Your task to perform on an android device: turn off wifi Image 0: 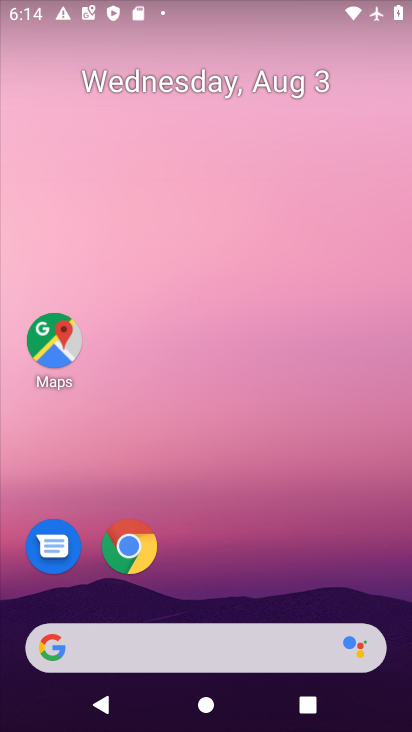
Step 0: press home button
Your task to perform on an android device: turn off wifi Image 1: 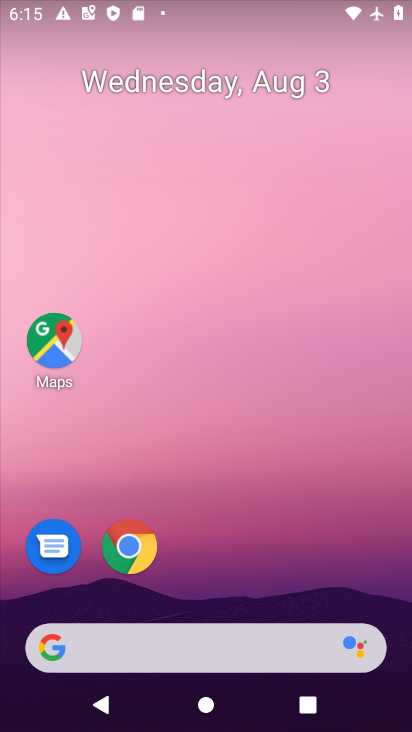
Step 1: drag from (212, 13) to (226, 548)
Your task to perform on an android device: turn off wifi Image 2: 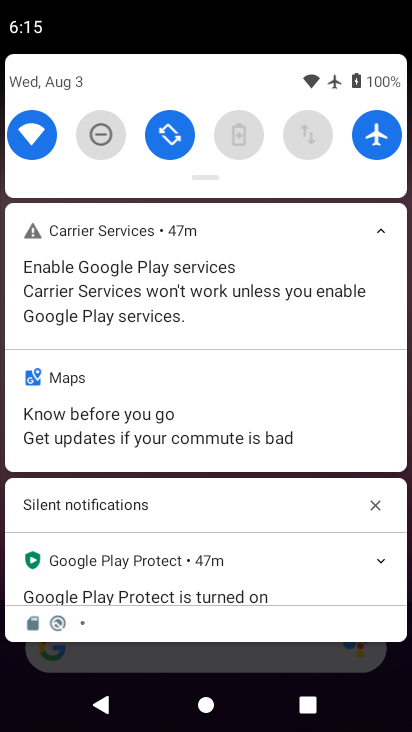
Step 2: click (25, 139)
Your task to perform on an android device: turn off wifi Image 3: 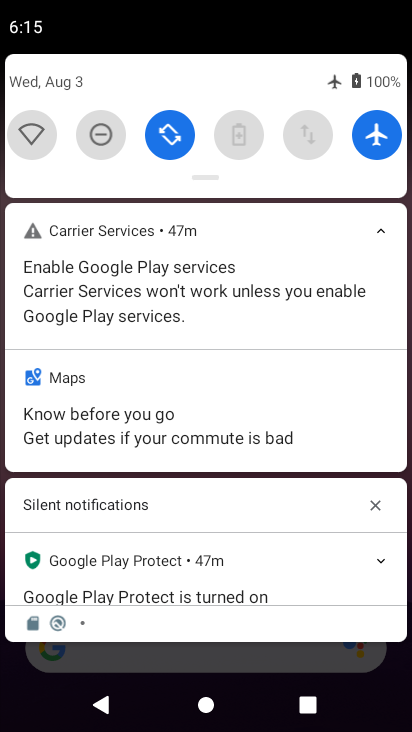
Step 3: task complete